Your task to perform on an android device: clear history in the chrome app Image 0: 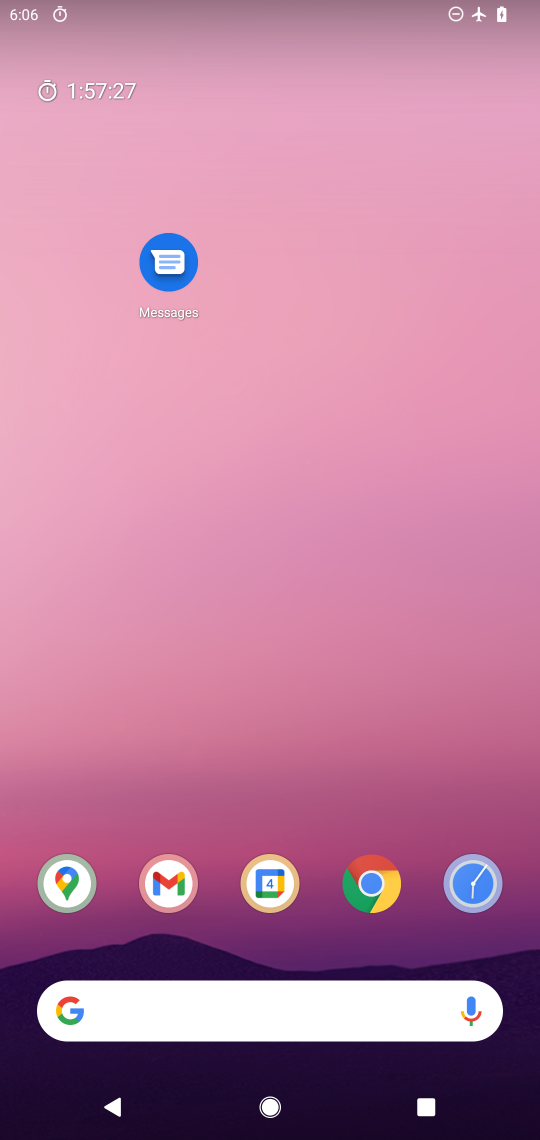
Step 0: click (368, 880)
Your task to perform on an android device: clear history in the chrome app Image 1: 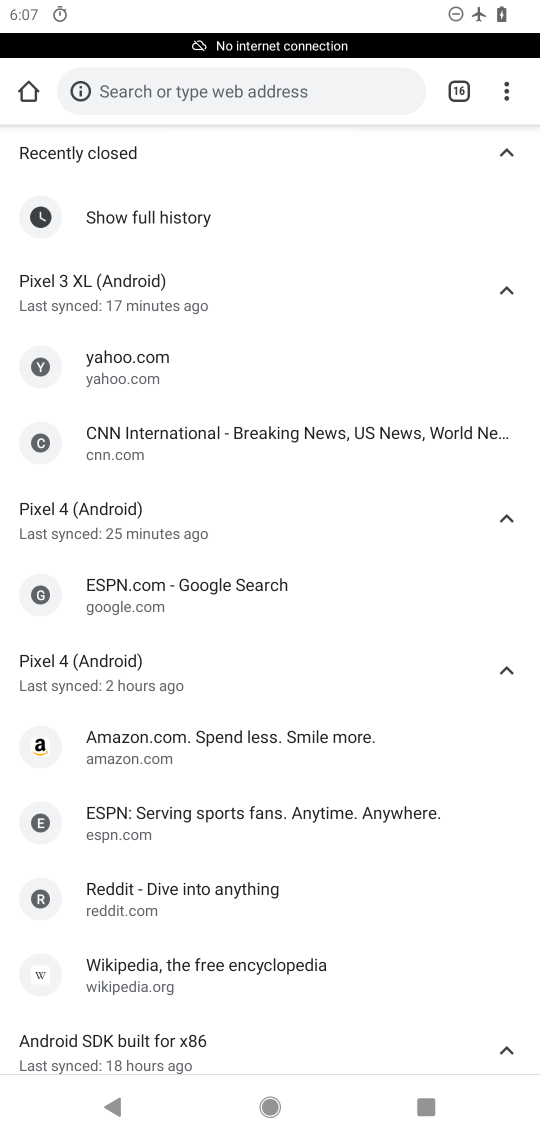
Step 1: click (504, 100)
Your task to perform on an android device: clear history in the chrome app Image 2: 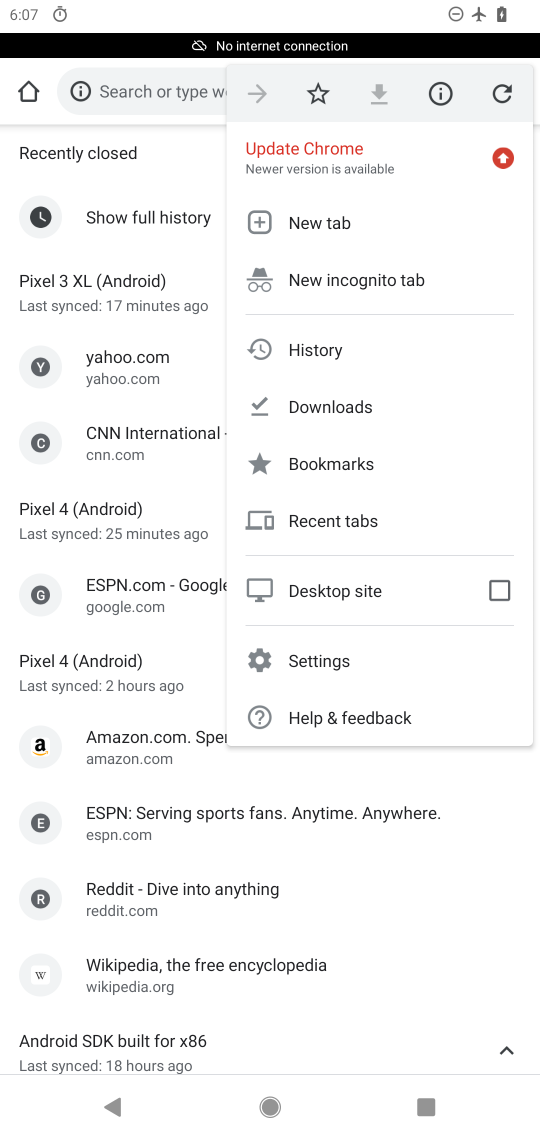
Step 2: click (320, 345)
Your task to perform on an android device: clear history in the chrome app Image 3: 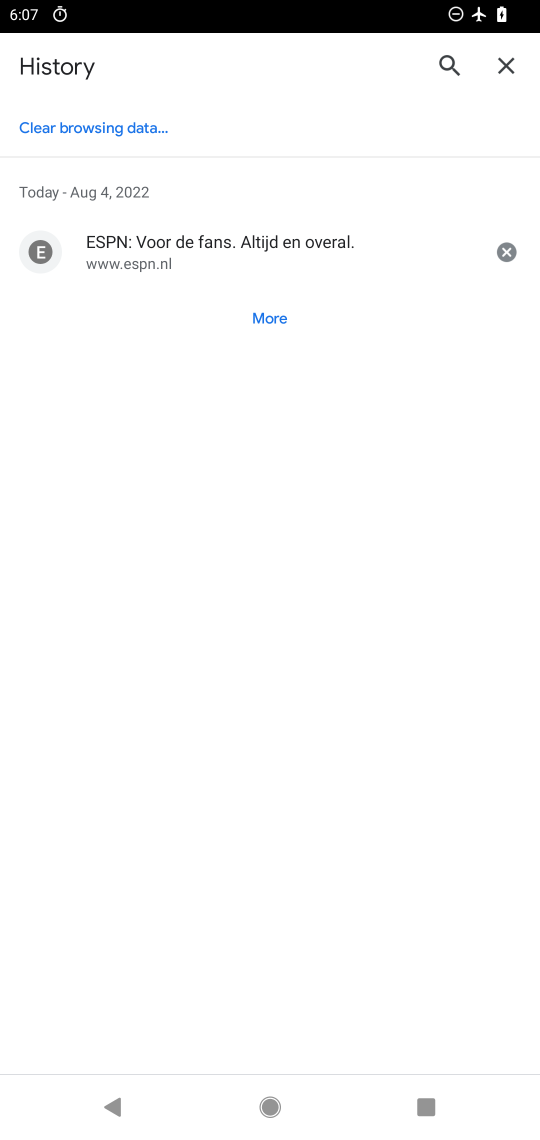
Step 3: click (93, 128)
Your task to perform on an android device: clear history in the chrome app Image 4: 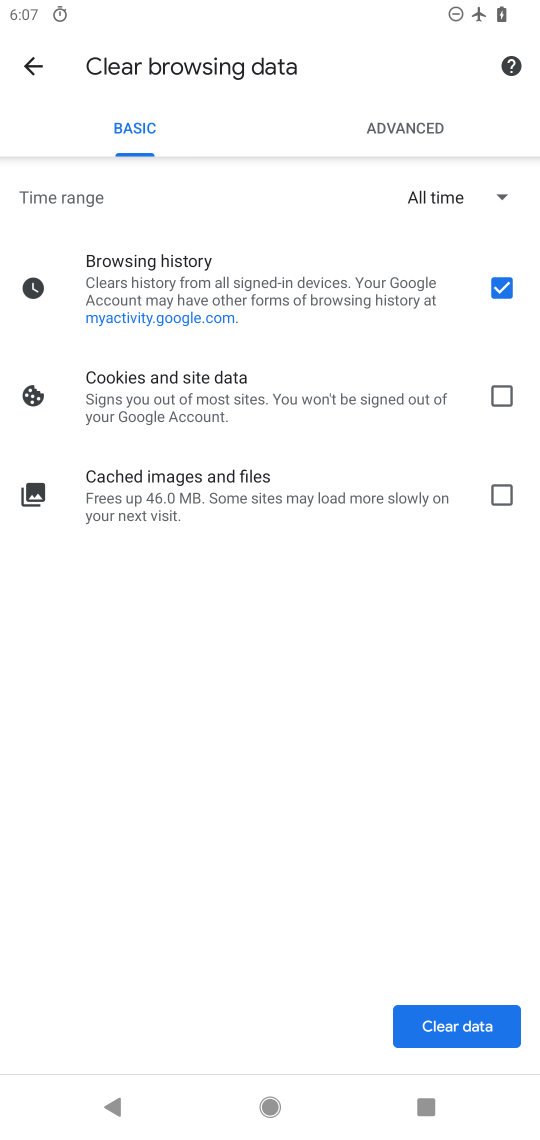
Step 4: click (470, 1029)
Your task to perform on an android device: clear history in the chrome app Image 5: 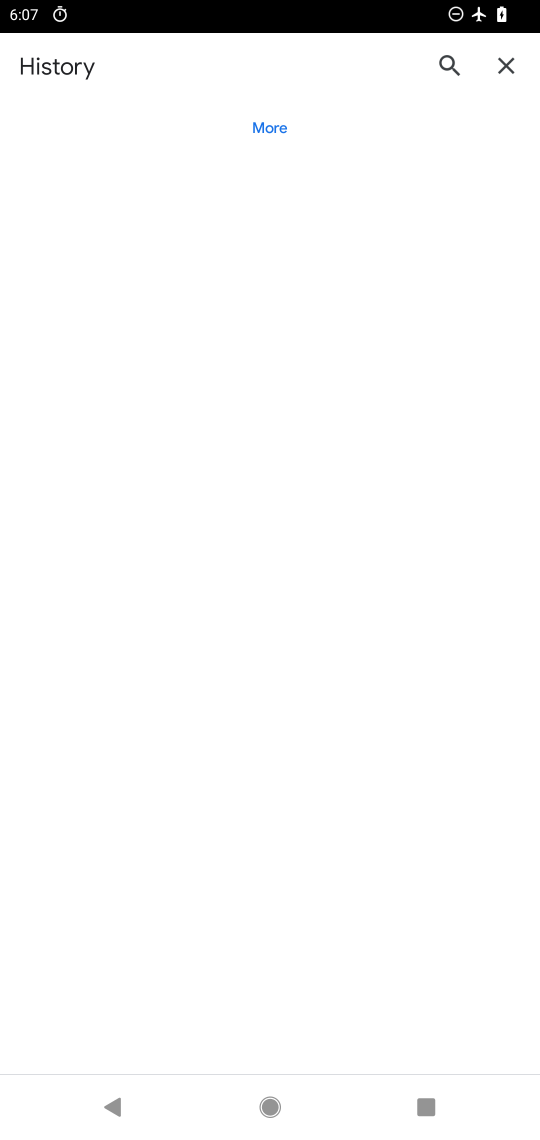
Step 5: task complete